Your task to perform on an android device: check google app version Image 0: 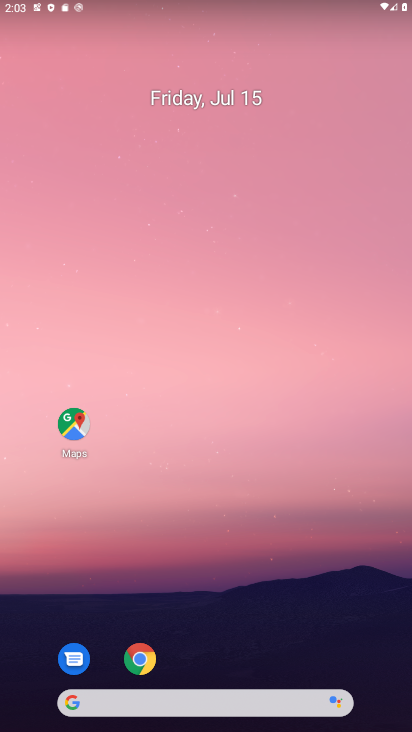
Step 0: drag from (248, 675) to (247, 308)
Your task to perform on an android device: check google app version Image 1: 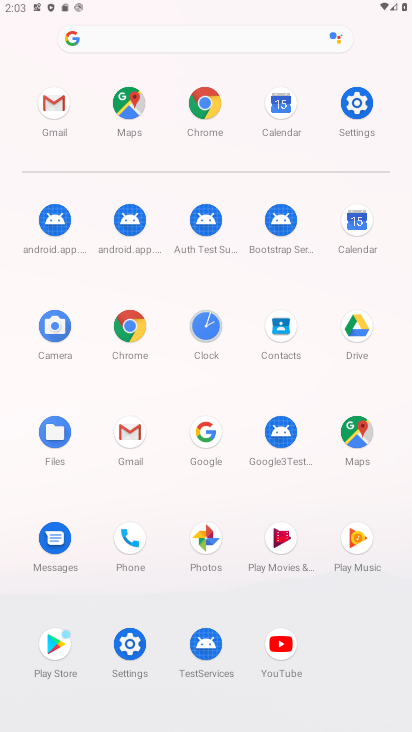
Step 1: click (207, 429)
Your task to perform on an android device: check google app version Image 2: 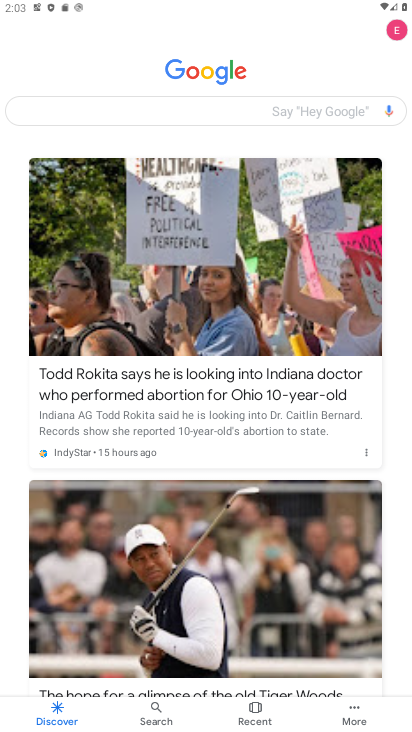
Step 2: click (347, 710)
Your task to perform on an android device: check google app version Image 3: 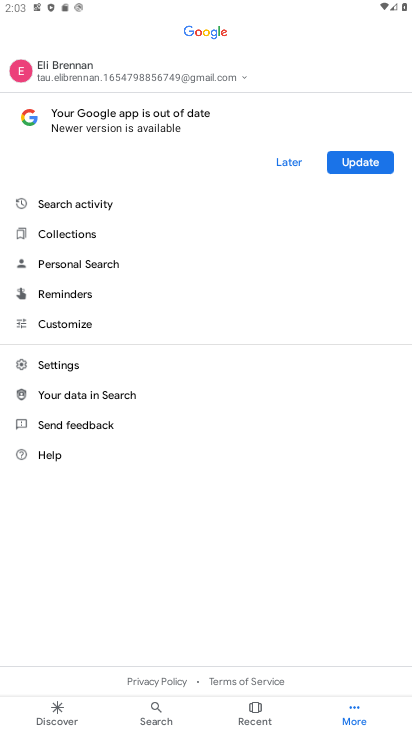
Step 3: click (54, 354)
Your task to perform on an android device: check google app version Image 4: 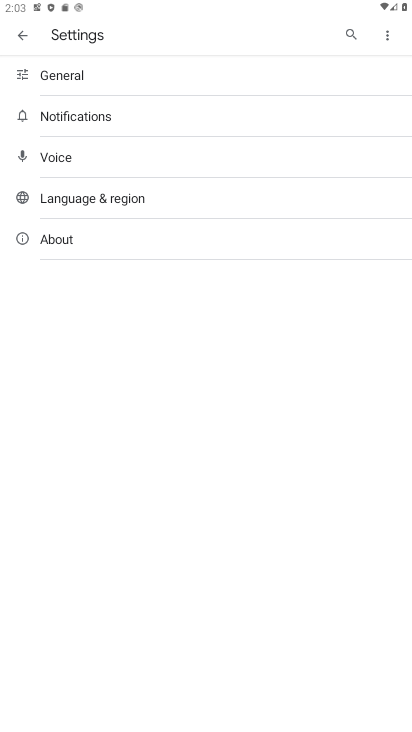
Step 4: click (69, 236)
Your task to perform on an android device: check google app version Image 5: 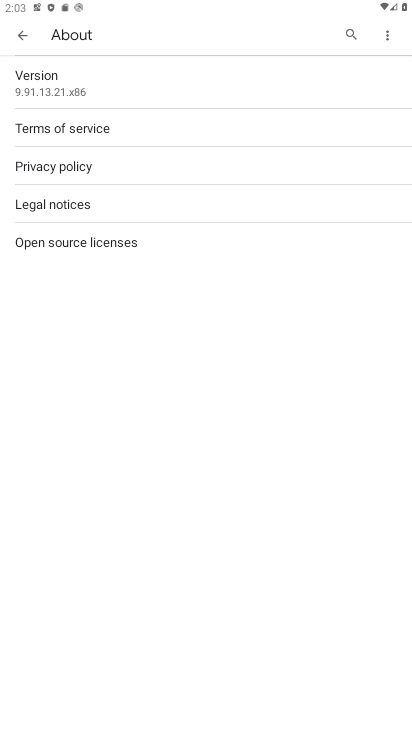
Step 5: click (87, 84)
Your task to perform on an android device: check google app version Image 6: 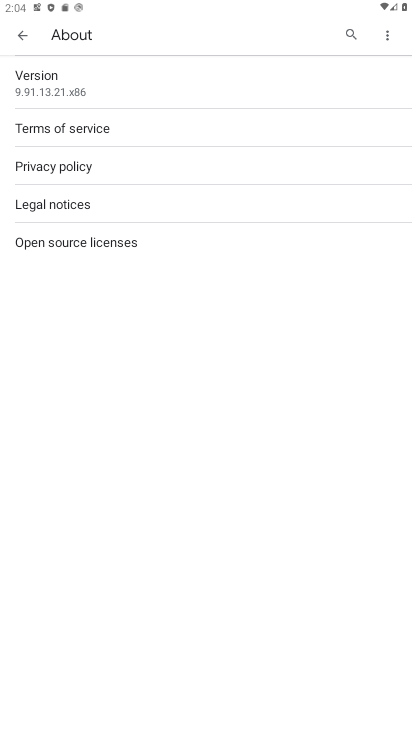
Step 6: task complete